Your task to perform on an android device: Go to Wikipedia Image 0: 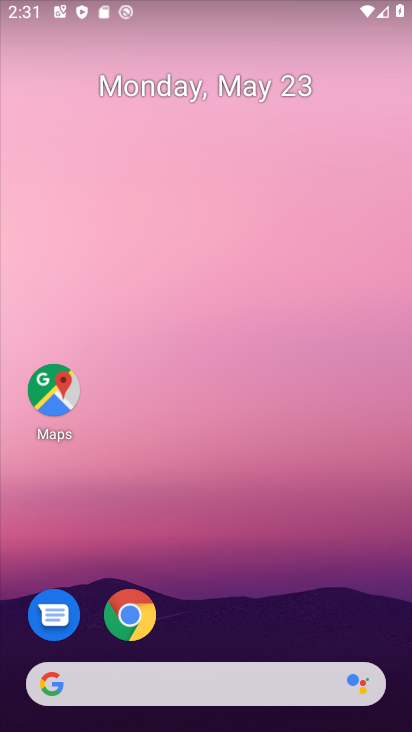
Step 0: drag from (284, 634) to (313, 96)
Your task to perform on an android device: Go to Wikipedia Image 1: 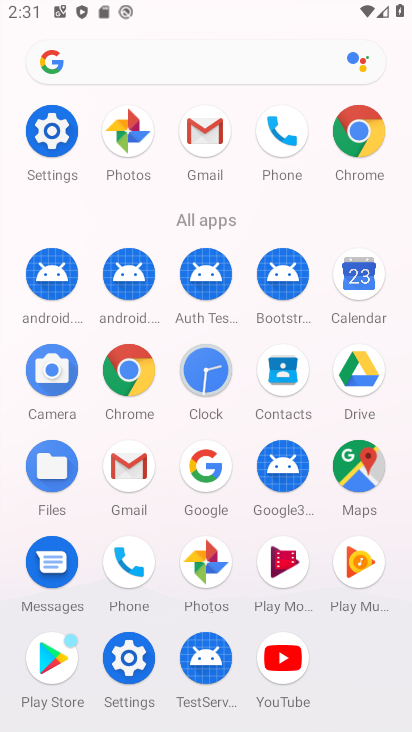
Step 1: drag from (368, 561) to (337, 117)
Your task to perform on an android device: Go to Wikipedia Image 2: 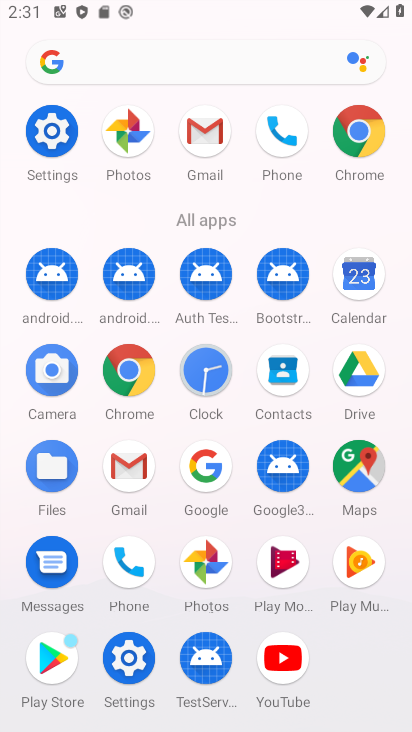
Step 2: click (141, 387)
Your task to perform on an android device: Go to Wikipedia Image 3: 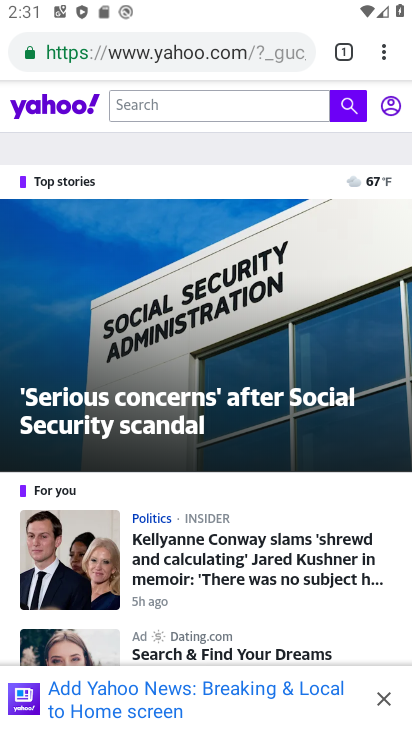
Step 3: click (200, 47)
Your task to perform on an android device: Go to Wikipedia Image 4: 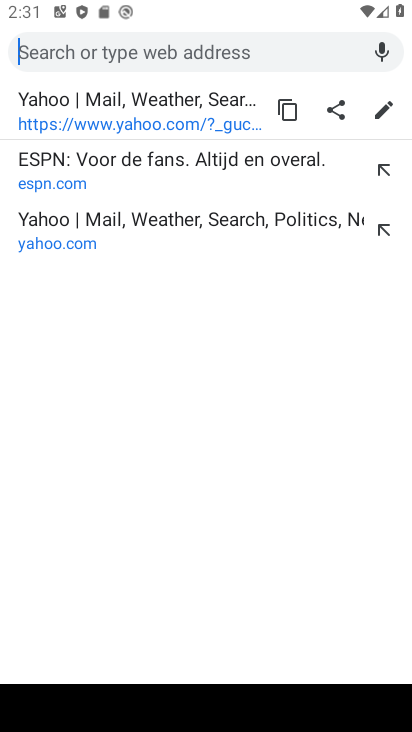
Step 4: type "wikipedia"
Your task to perform on an android device: Go to Wikipedia Image 5: 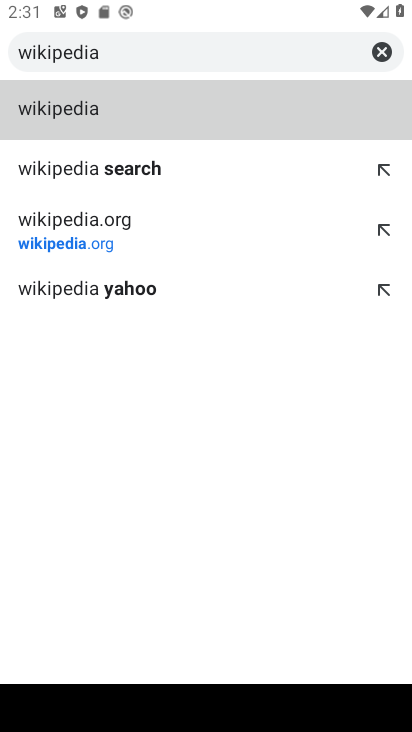
Step 5: click (211, 124)
Your task to perform on an android device: Go to Wikipedia Image 6: 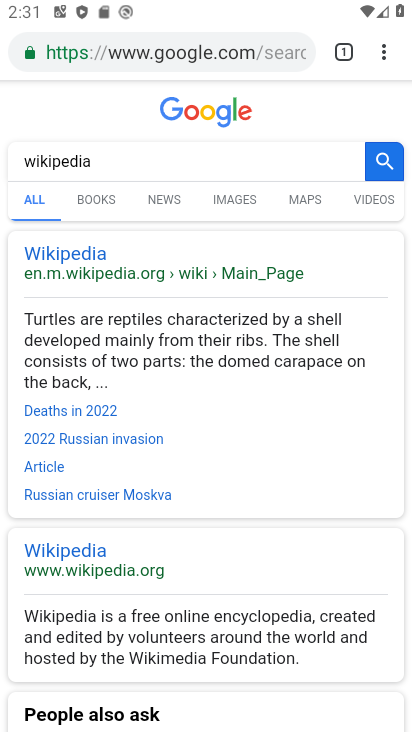
Step 6: task complete